Your task to perform on an android device: See recent photos Image 0: 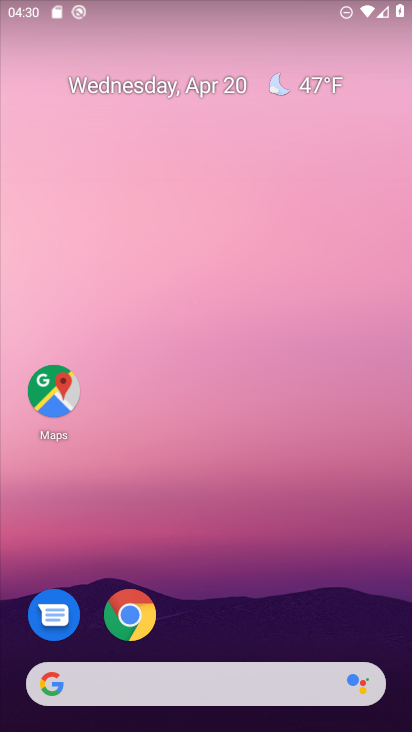
Step 0: drag from (216, 389) to (203, 77)
Your task to perform on an android device: See recent photos Image 1: 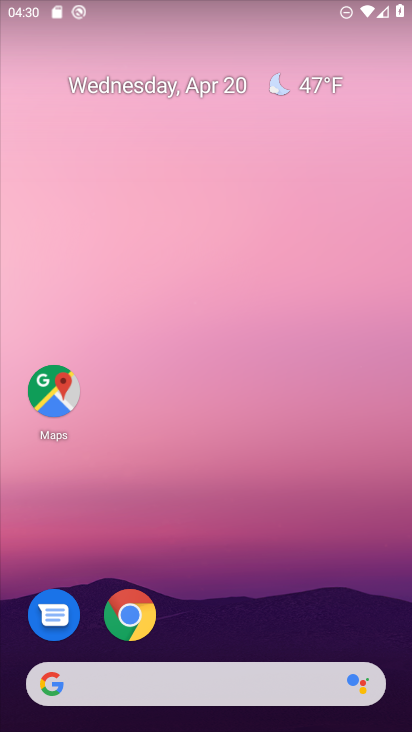
Step 1: drag from (264, 621) to (222, 9)
Your task to perform on an android device: See recent photos Image 2: 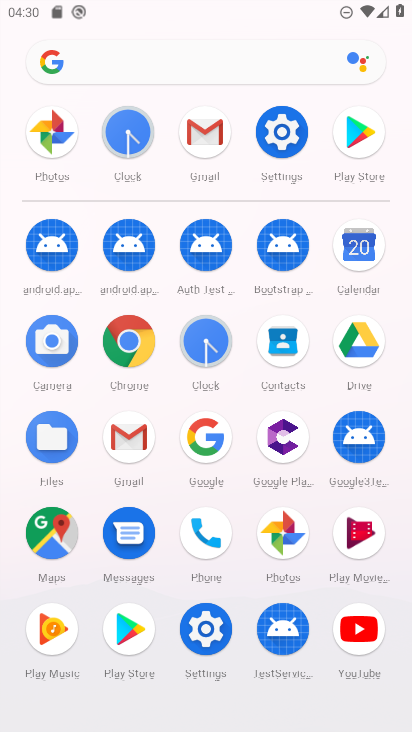
Step 2: click (277, 513)
Your task to perform on an android device: See recent photos Image 3: 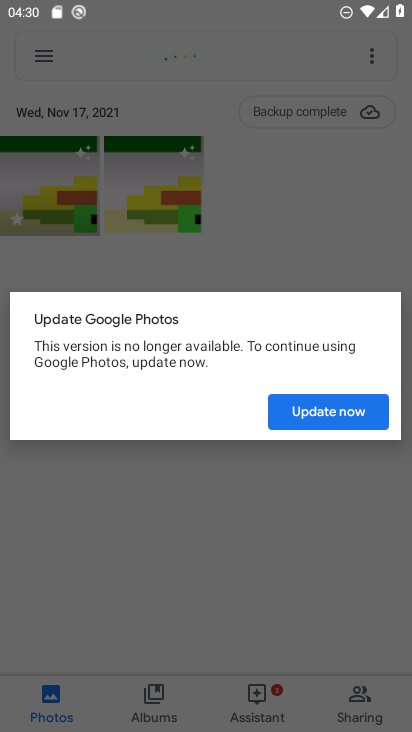
Step 3: click (350, 407)
Your task to perform on an android device: See recent photos Image 4: 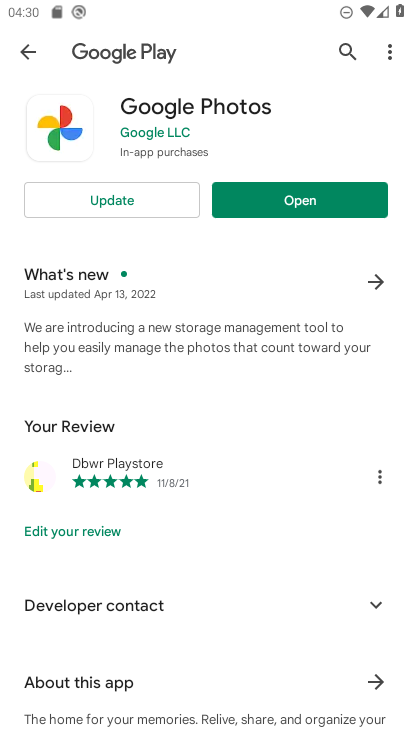
Step 4: click (184, 206)
Your task to perform on an android device: See recent photos Image 5: 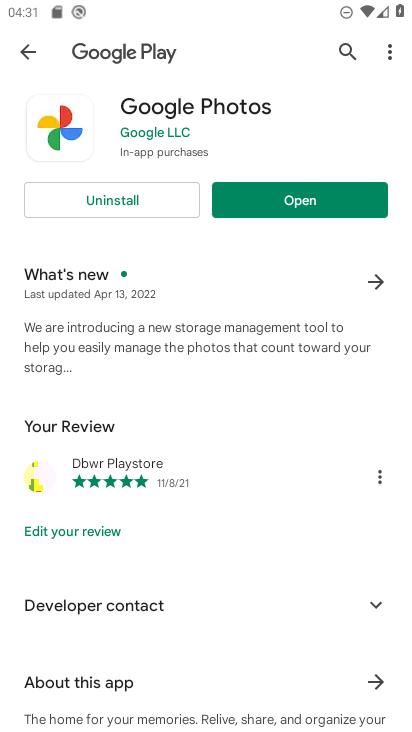
Step 5: click (319, 208)
Your task to perform on an android device: See recent photos Image 6: 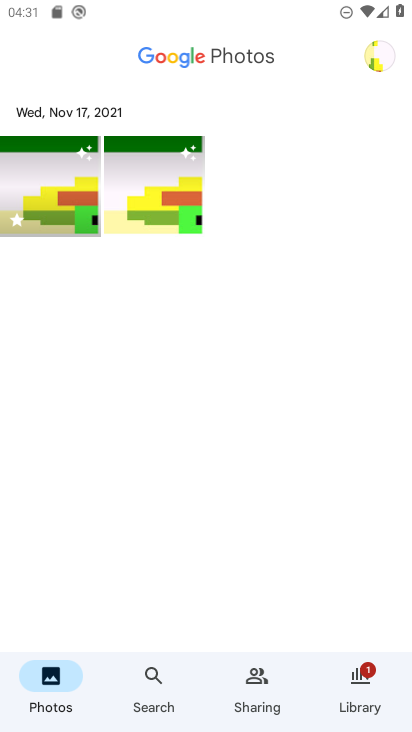
Step 6: click (65, 170)
Your task to perform on an android device: See recent photos Image 7: 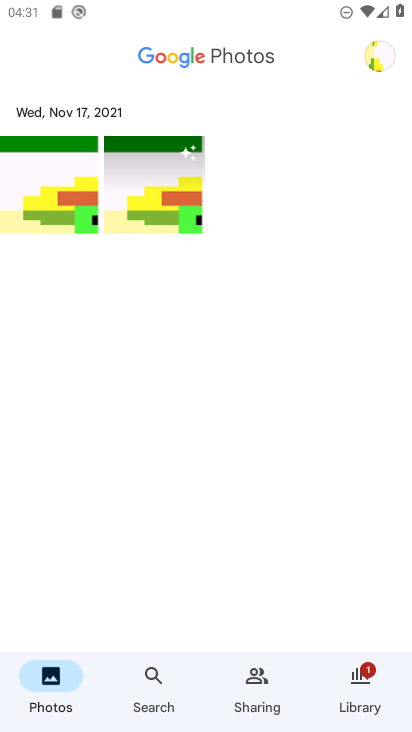
Step 7: task complete